Your task to perform on an android device: What's on my calendar tomorrow? Image 0: 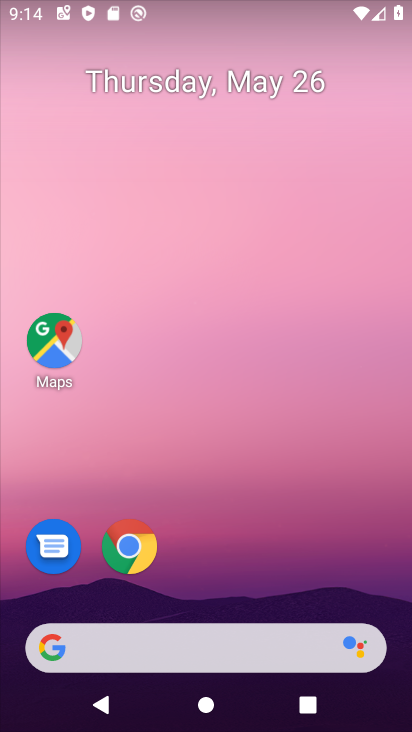
Step 0: drag from (239, 587) to (232, 55)
Your task to perform on an android device: What's on my calendar tomorrow? Image 1: 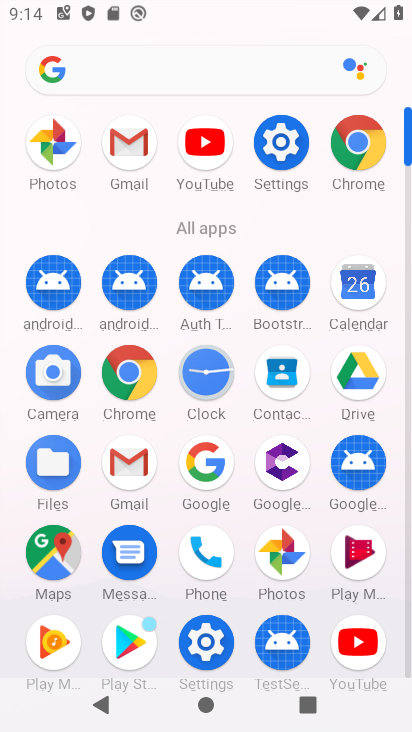
Step 1: click (362, 289)
Your task to perform on an android device: What's on my calendar tomorrow? Image 2: 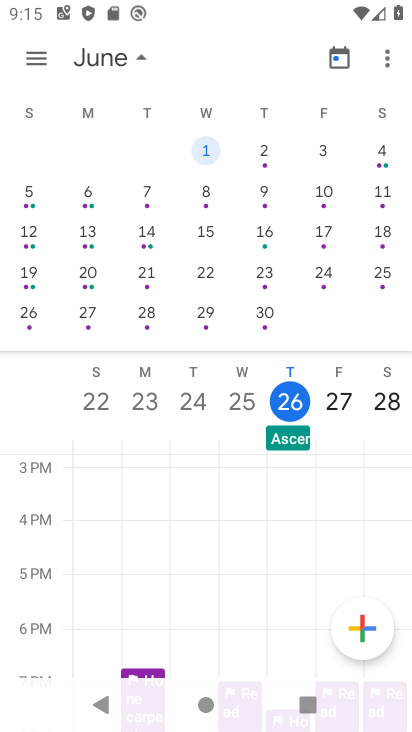
Step 2: click (38, 53)
Your task to perform on an android device: What's on my calendar tomorrow? Image 3: 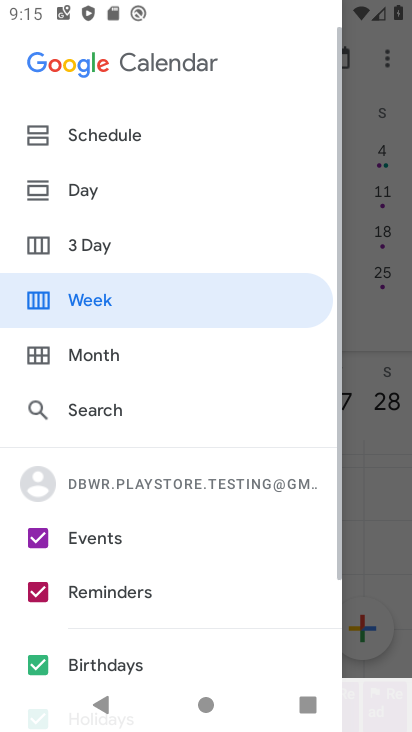
Step 3: click (81, 181)
Your task to perform on an android device: What's on my calendar tomorrow? Image 4: 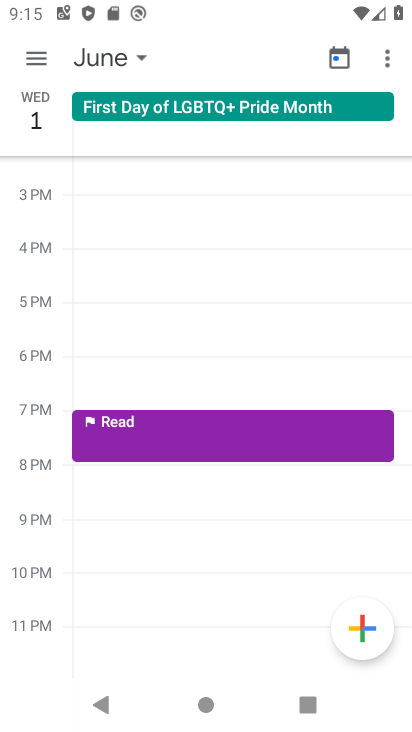
Step 4: click (113, 61)
Your task to perform on an android device: What's on my calendar tomorrow? Image 5: 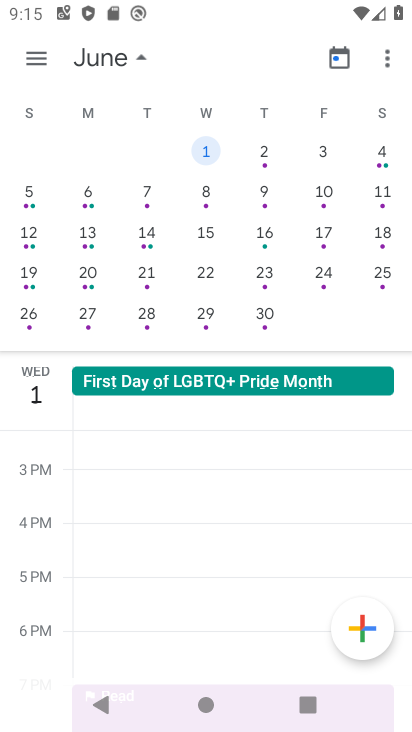
Step 5: drag from (113, 198) to (357, 216)
Your task to perform on an android device: What's on my calendar tomorrow? Image 6: 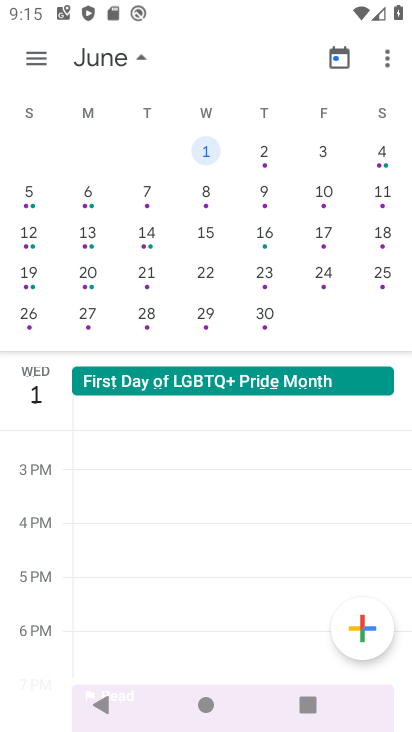
Step 6: drag from (29, 228) to (378, 255)
Your task to perform on an android device: What's on my calendar tomorrow? Image 7: 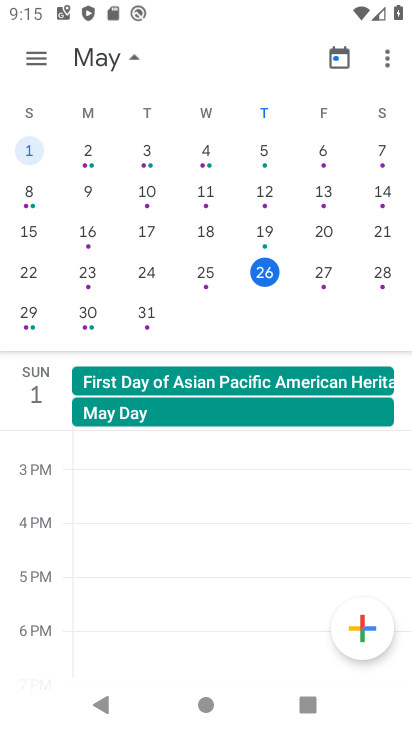
Step 7: click (385, 282)
Your task to perform on an android device: What's on my calendar tomorrow? Image 8: 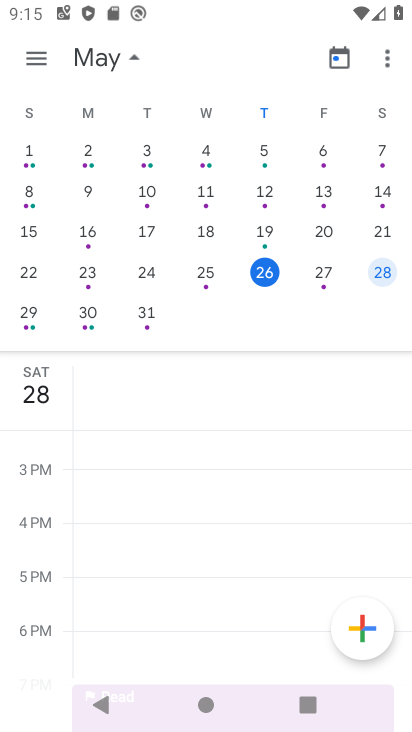
Step 8: click (135, 59)
Your task to perform on an android device: What's on my calendar tomorrow? Image 9: 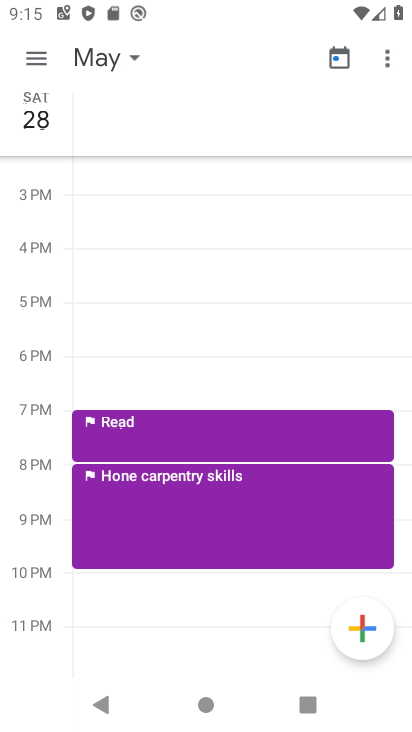
Step 9: task complete